Your task to perform on an android device: set the timer Image 0: 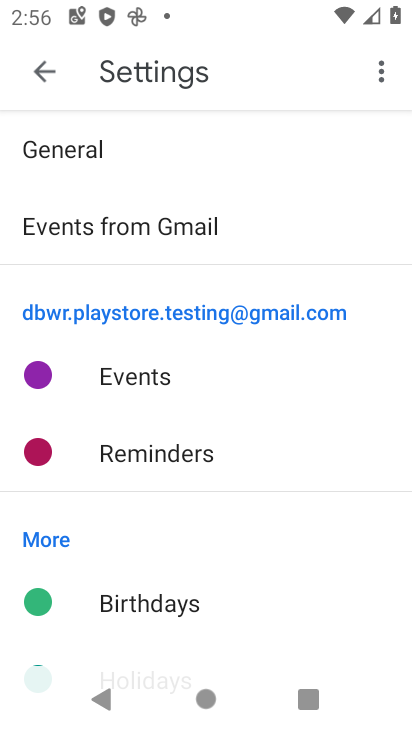
Step 0: press home button
Your task to perform on an android device: set the timer Image 1: 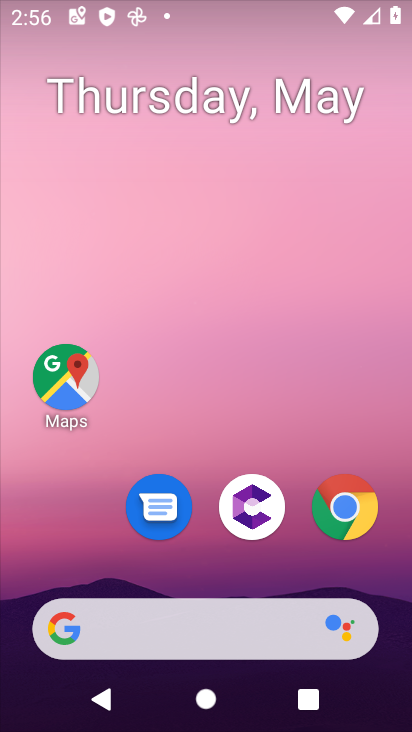
Step 1: drag from (228, 434) to (212, 0)
Your task to perform on an android device: set the timer Image 2: 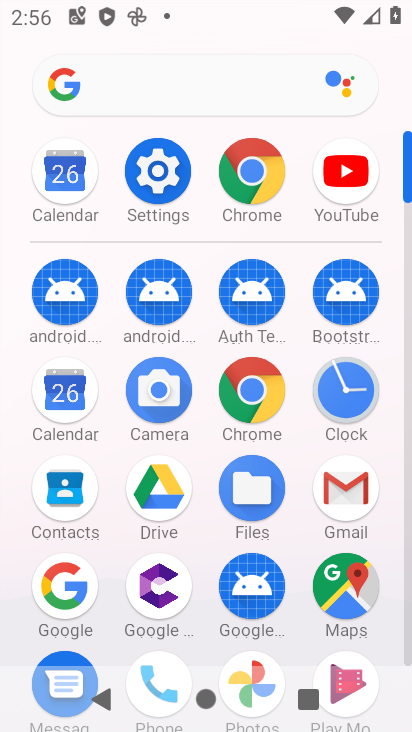
Step 2: click (328, 386)
Your task to perform on an android device: set the timer Image 3: 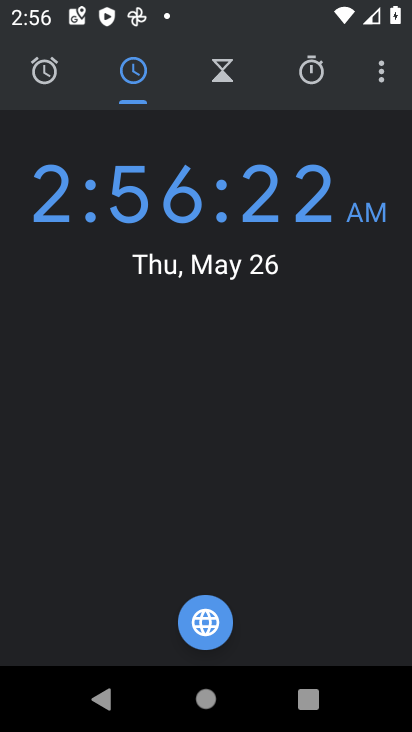
Step 3: click (379, 65)
Your task to perform on an android device: set the timer Image 4: 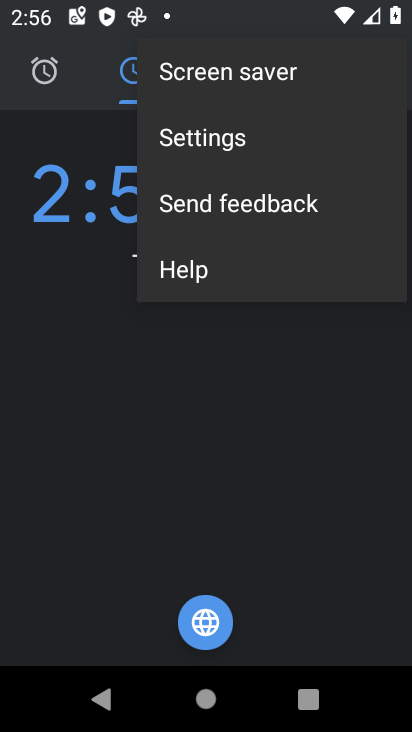
Step 4: click (217, 129)
Your task to perform on an android device: set the timer Image 5: 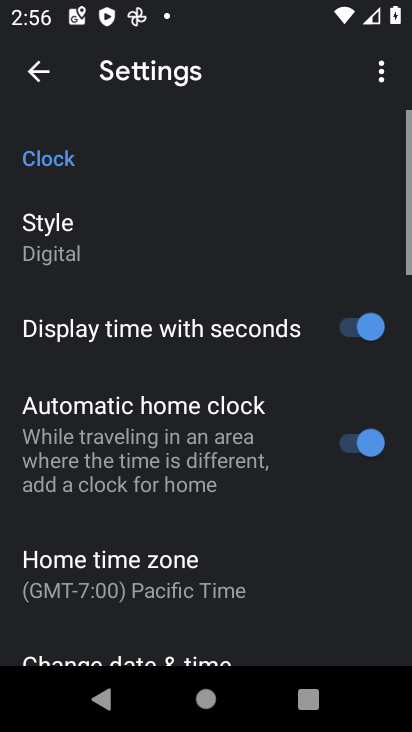
Step 5: click (79, 258)
Your task to perform on an android device: set the timer Image 6: 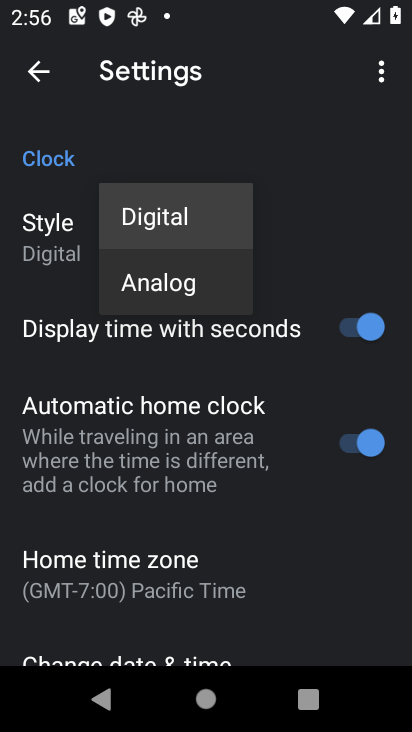
Step 6: click (149, 294)
Your task to perform on an android device: set the timer Image 7: 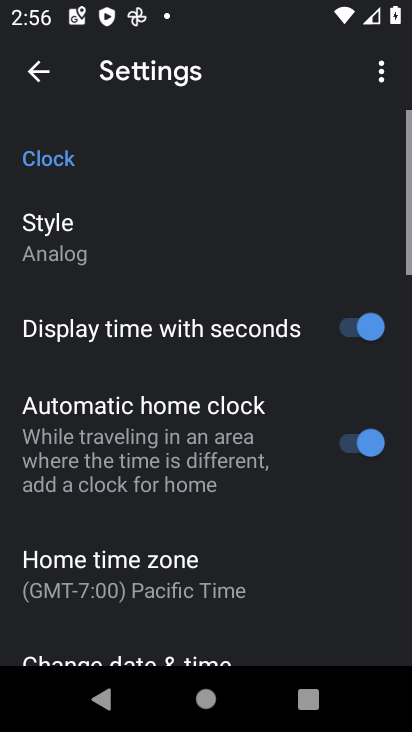
Step 7: task complete